Your task to perform on an android device: Open ESPN.com Image 0: 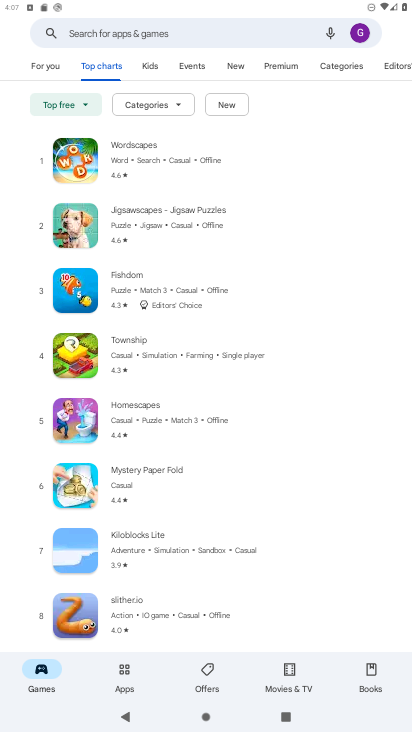
Step 0: press home button
Your task to perform on an android device: Open ESPN.com Image 1: 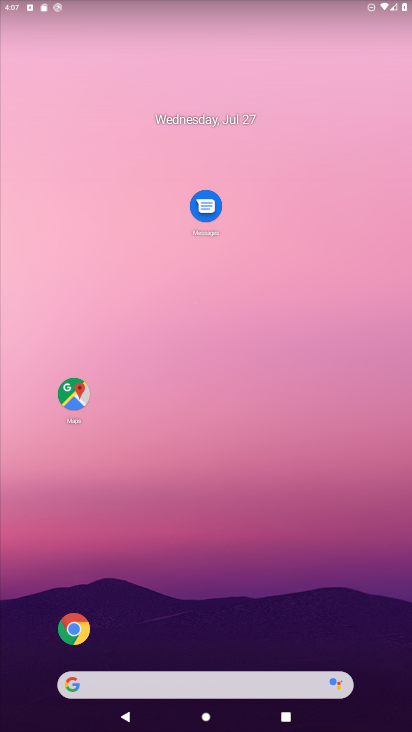
Step 1: click (163, 686)
Your task to perform on an android device: Open ESPN.com Image 2: 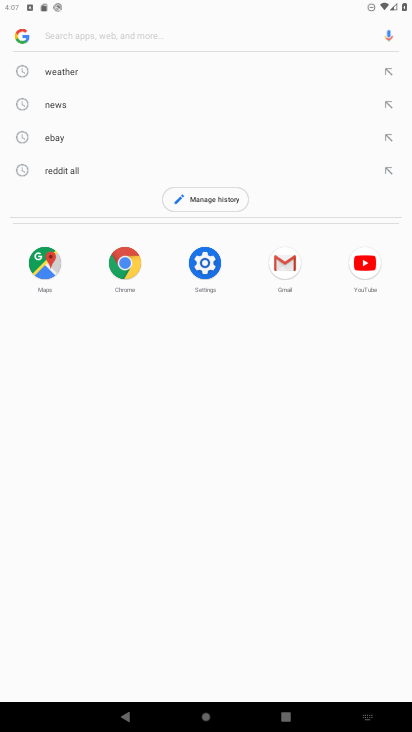
Step 2: press home button
Your task to perform on an android device: Open ESPN.com Image 3: 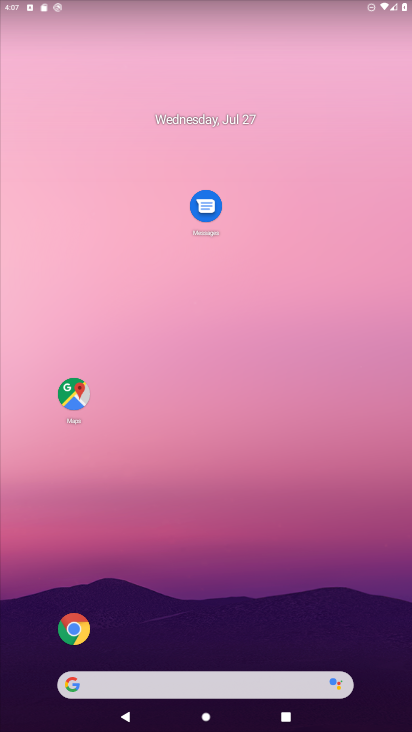
Step 3: click (80, 617)
Your task to perform on an android device: Open ESPN.com Image 4: 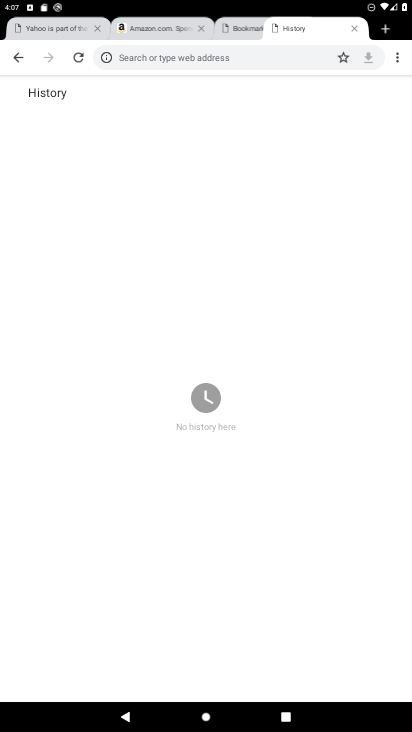
Step 4: click (384, 31)
Your task to perform on an android device: Open ESPN.com Image 5: 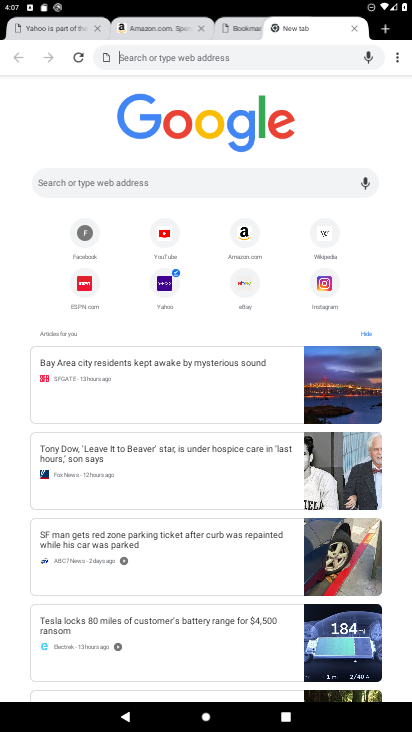
Step 5: click (75, 277)
Your task to perform on an android device: Open ESPN.com Image 6: 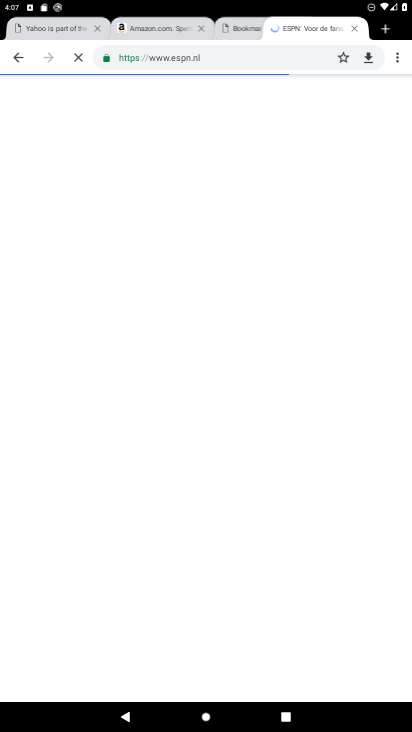
Step 6: task complete